Your task to perform on an android device: open app "Indeed Job Search" (install if not already installed) Image 0: 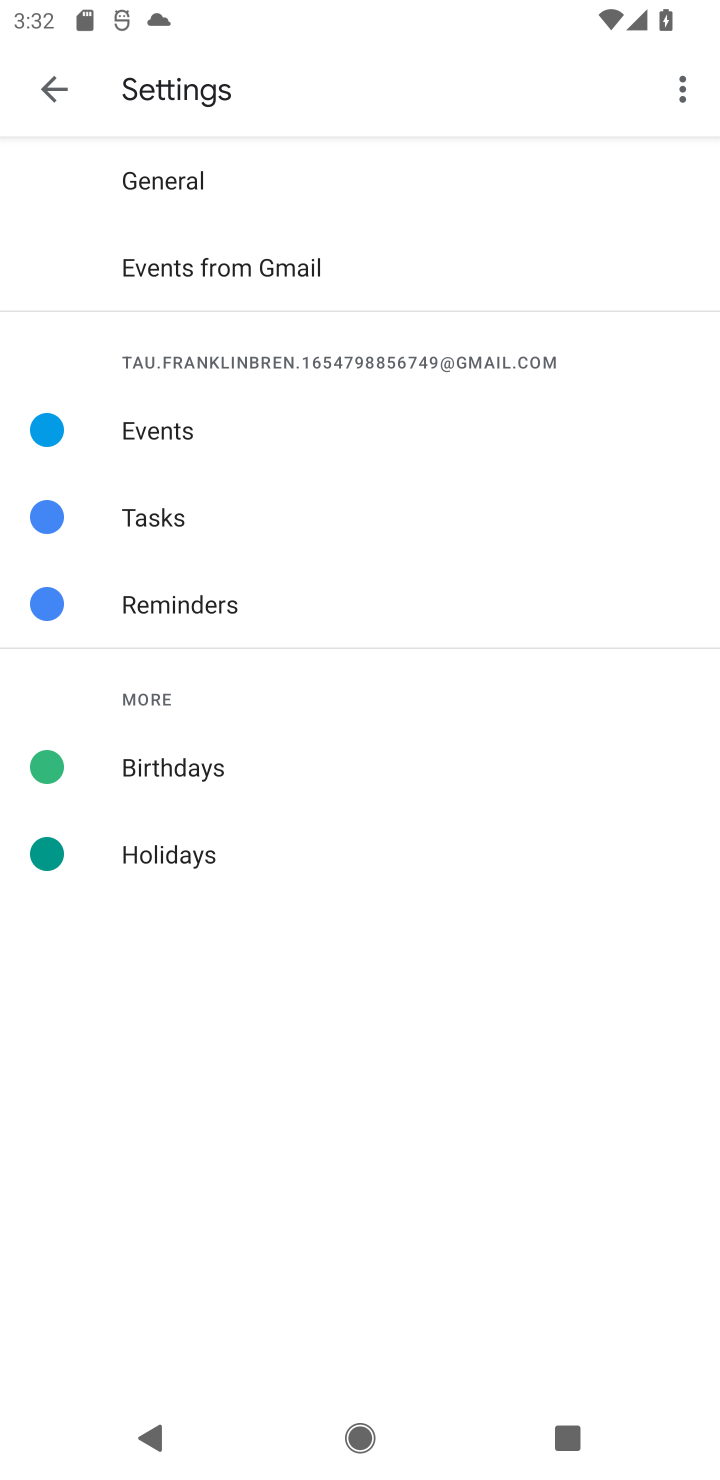
Step 0: press home button
Your task to perform on an android device: open app "Indeed Job Search" (install if not already installed) Image 1: 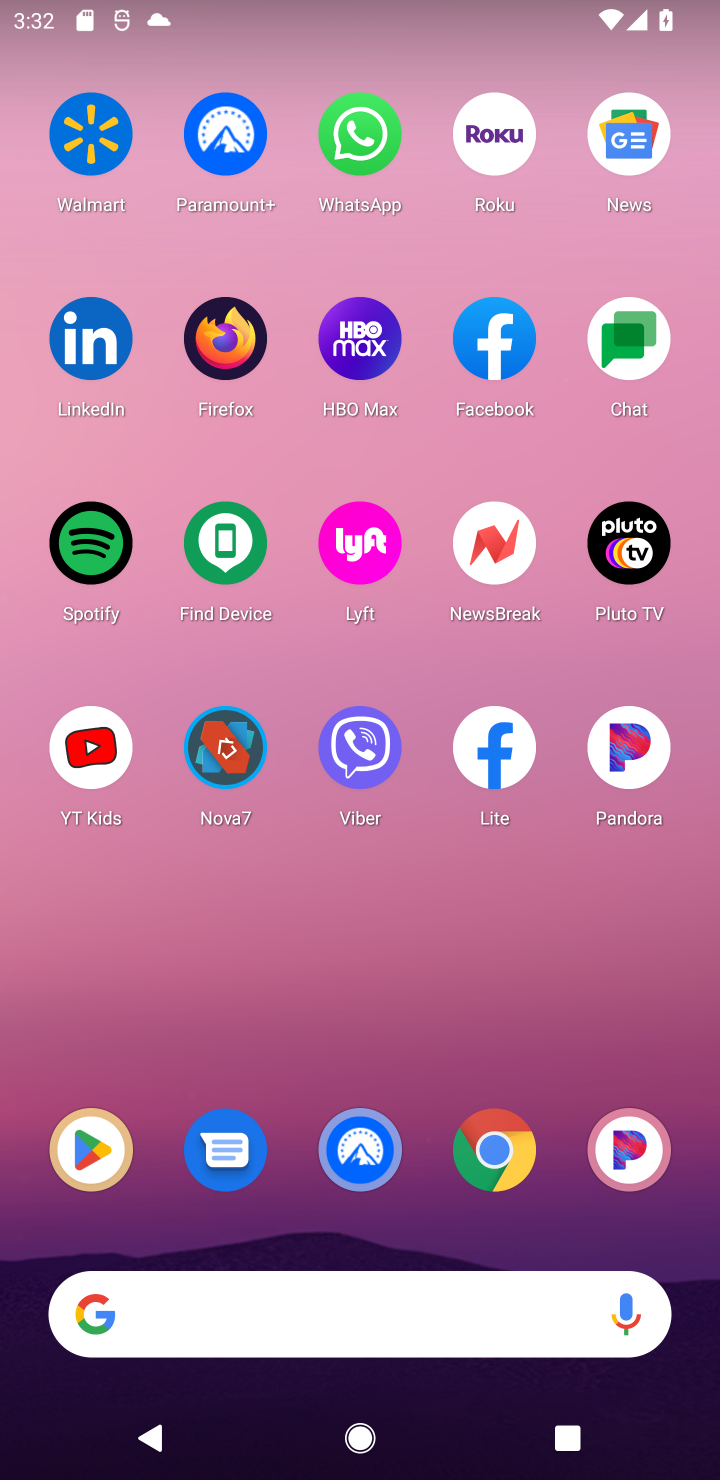
Step 1: click (79, 1146)
Your task to perform on an android device: open app "Indeed Job Search" (install if not already installed) Image 2: 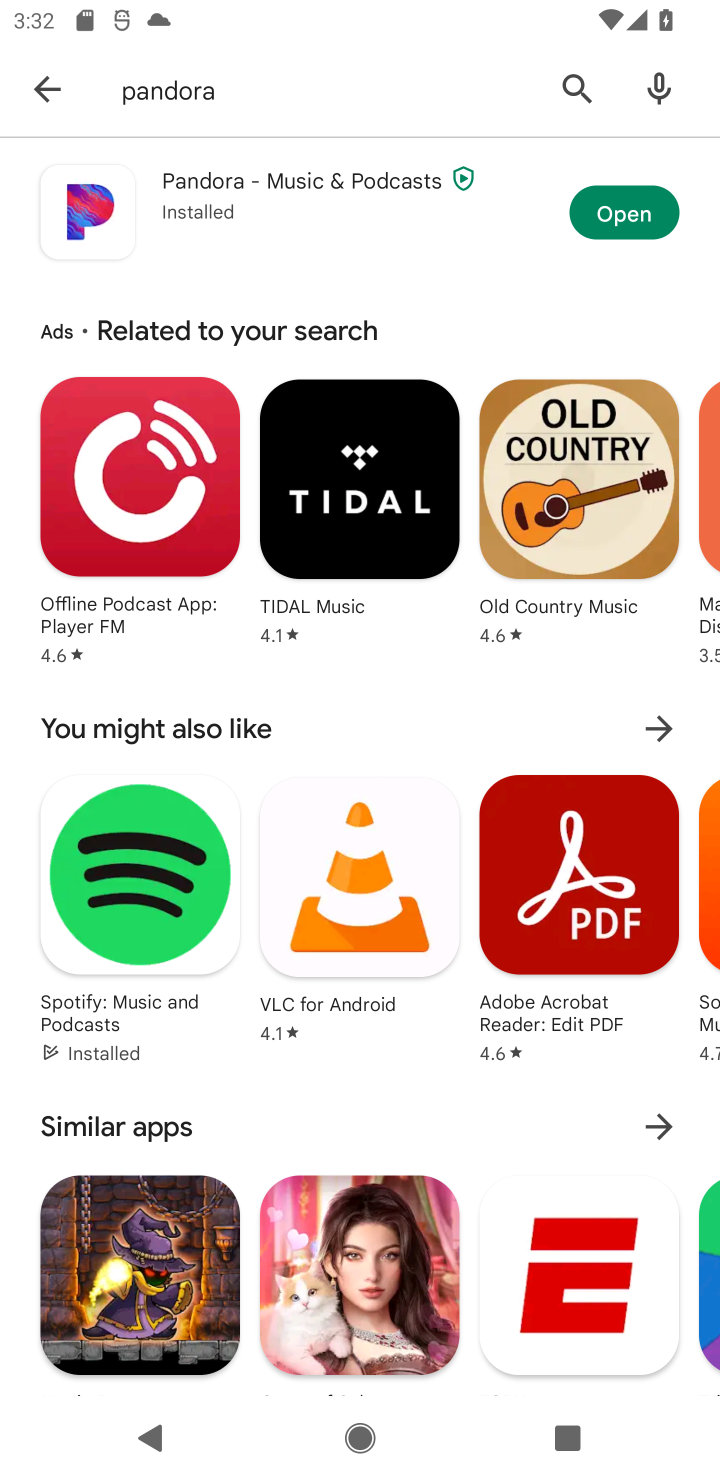
Step 2: click (563, 88)
Your task to perform on an android device: open app "Indeed Job Search" (install if not already installed) Image 3: 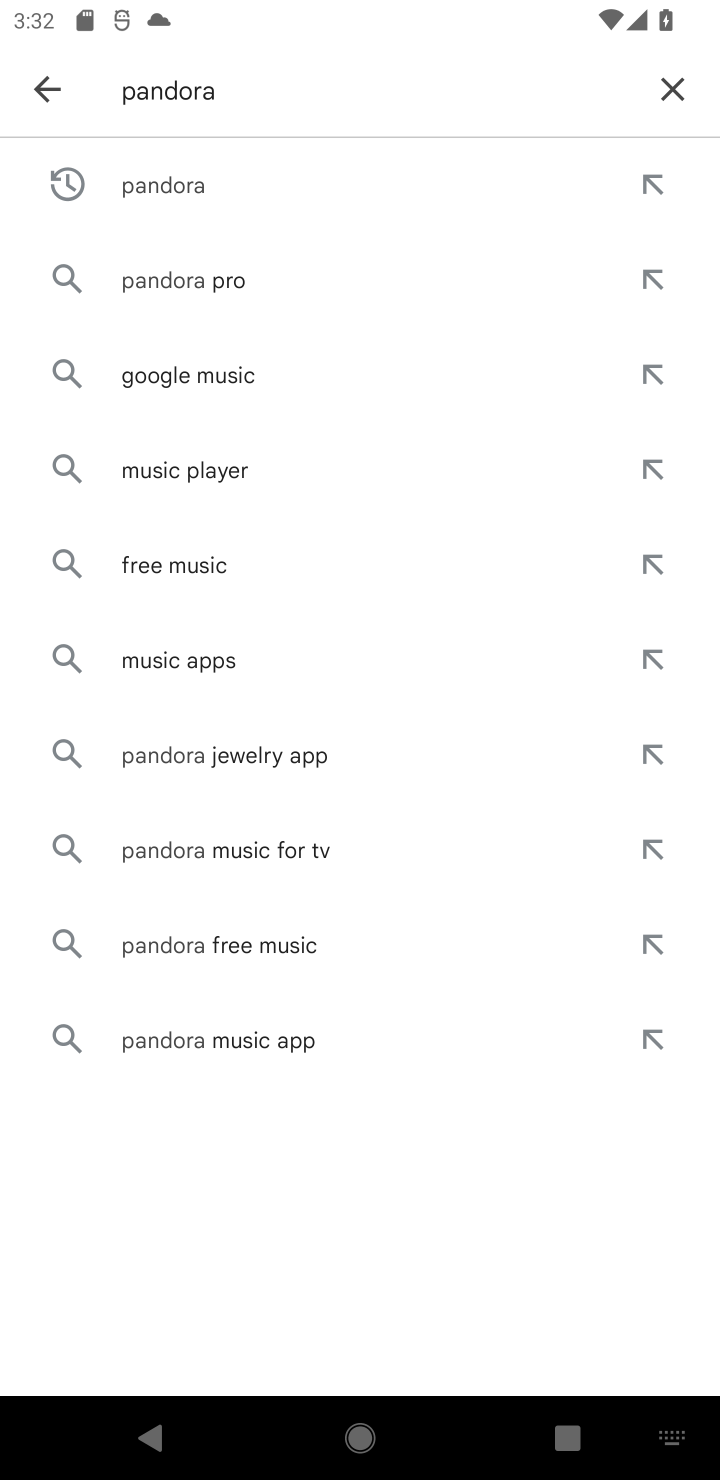
Step 3: click (692, 90)
Your task to perform on an android device: open app "Indeed Job Search" (install if not already installed) Image 4: 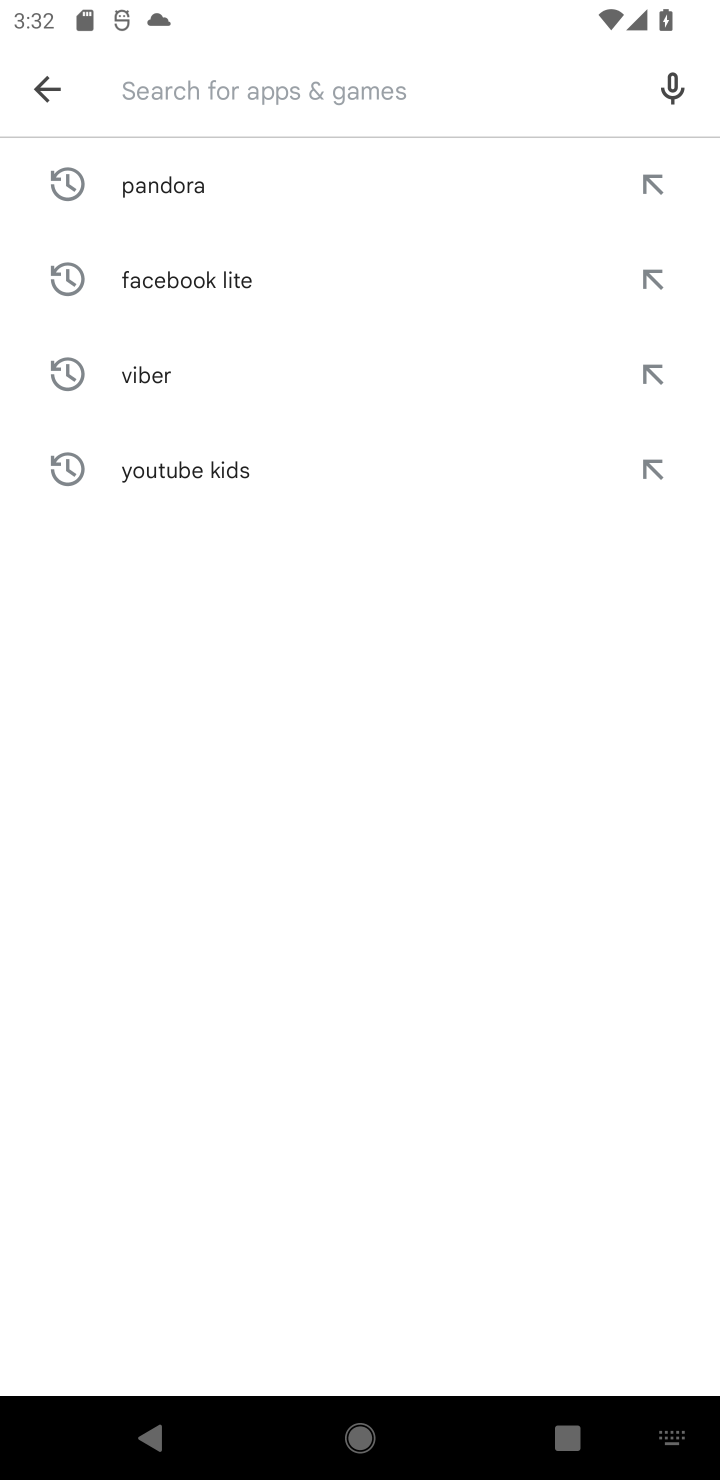
Step 4: type "indeed"
Your task to perform on an android device: open app "Indeed Job Search" (install if not already installed) Image 5: 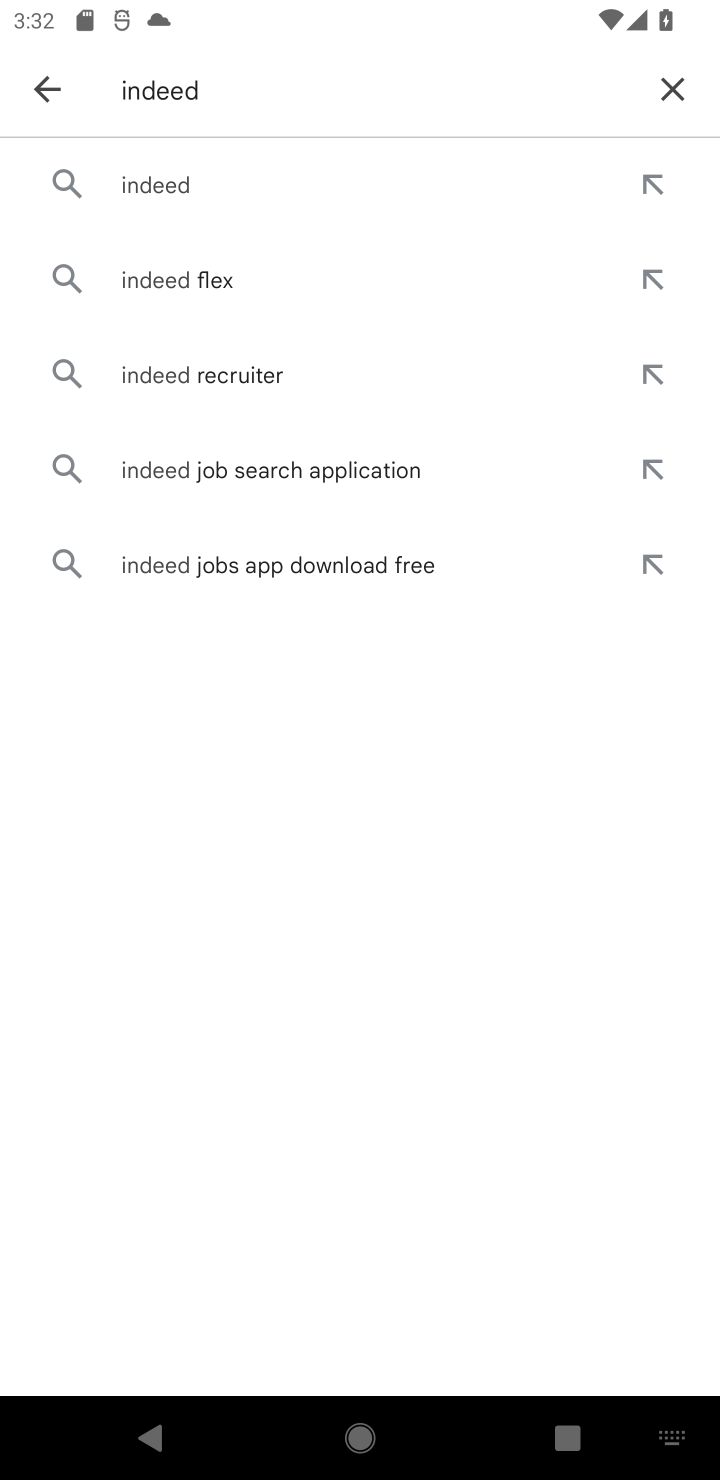
Step 5: click (390, 214)
Your task to perform on an android device: open app "Indeed Job Search" (install if not already installed) Image 6: 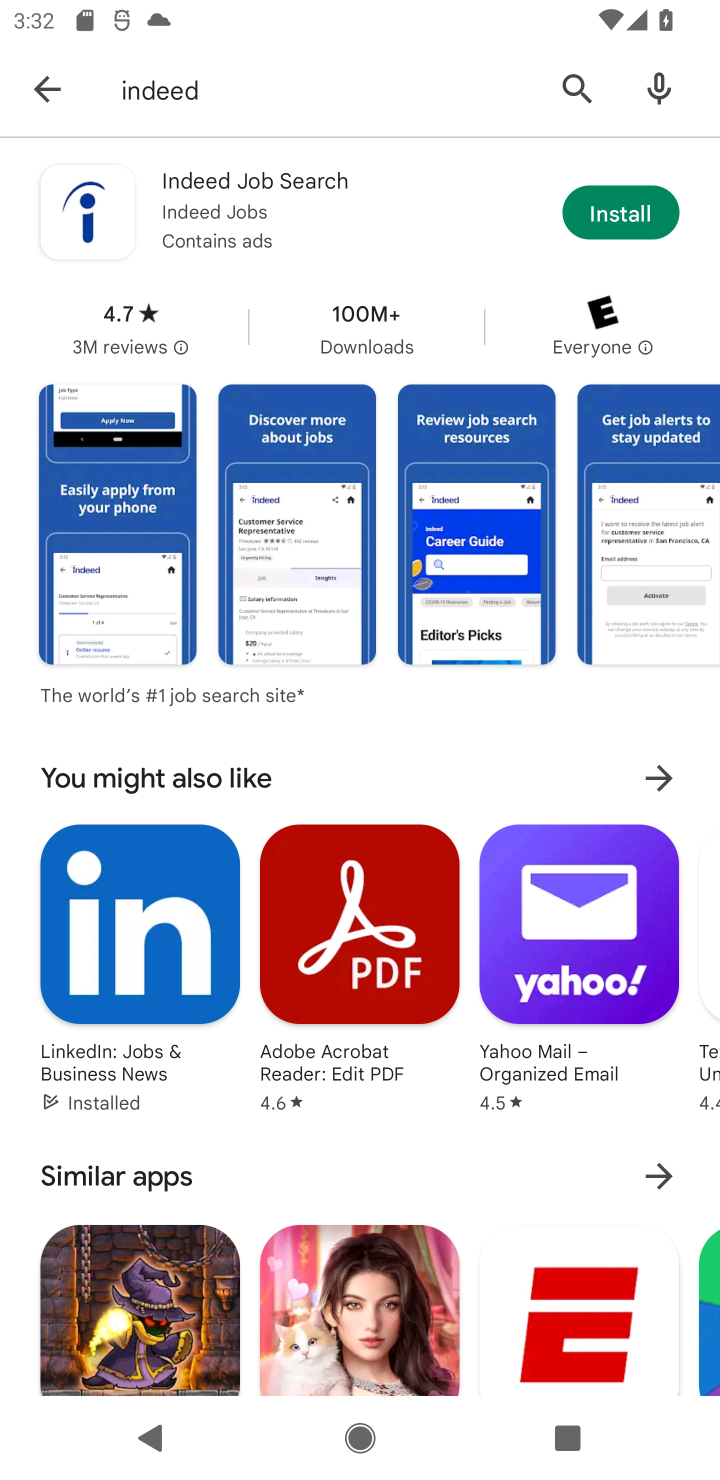
Step 6: click (625, 217)
Your task to perform on an android device: open app "Indeed Job Search" (install if not already installed) Image 7: 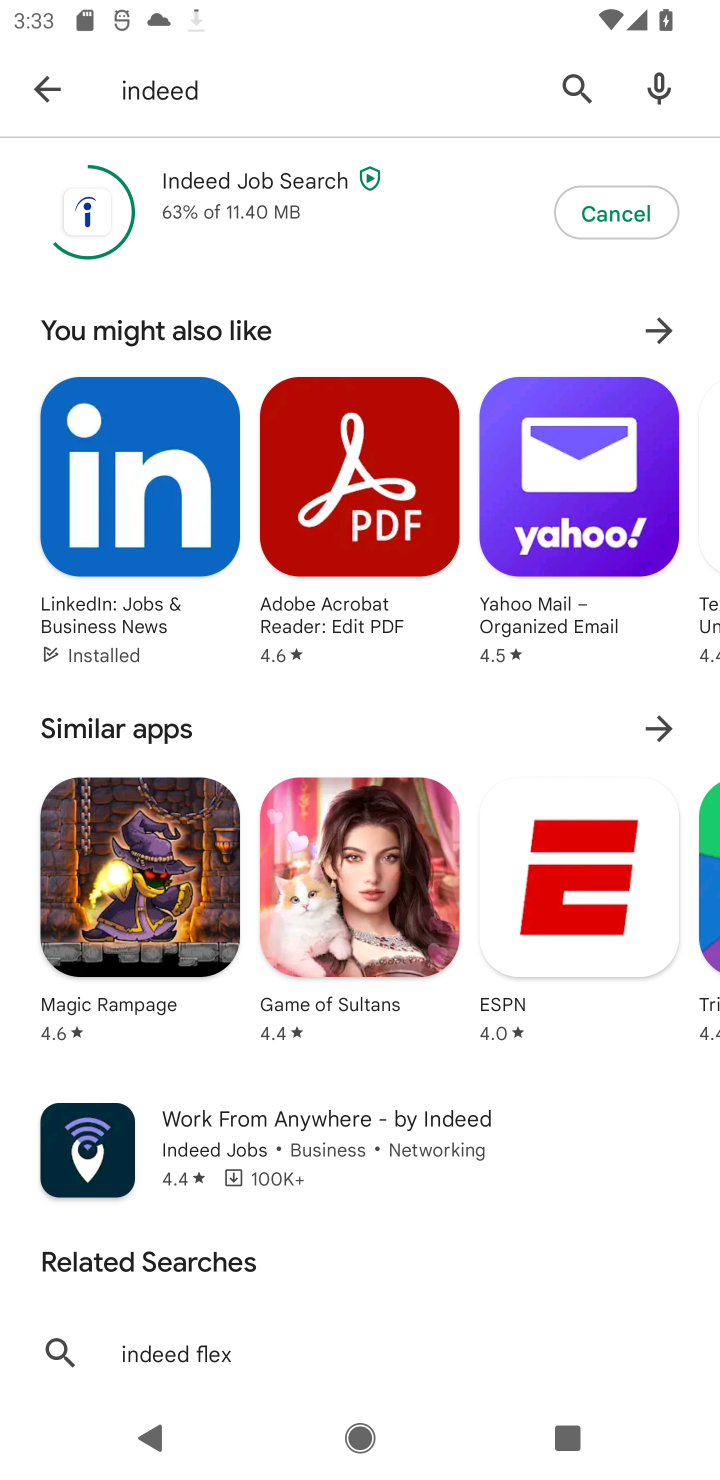
Step 7: task complete